Your task to perform on an android device: Check the weather Image 0: 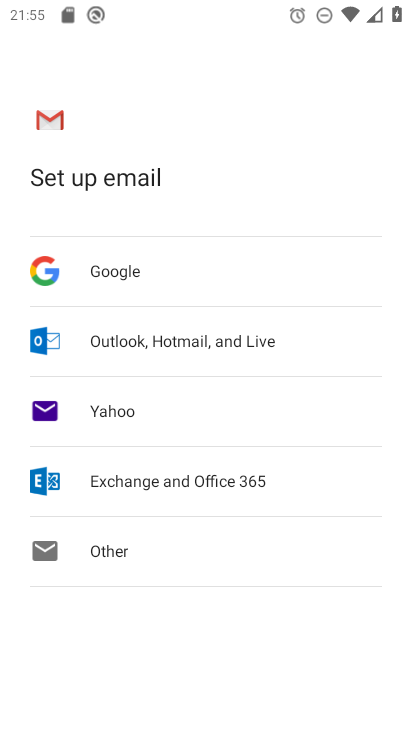
Step 0: press home button
Your task to perform on an android device: Check the weather Image 1: 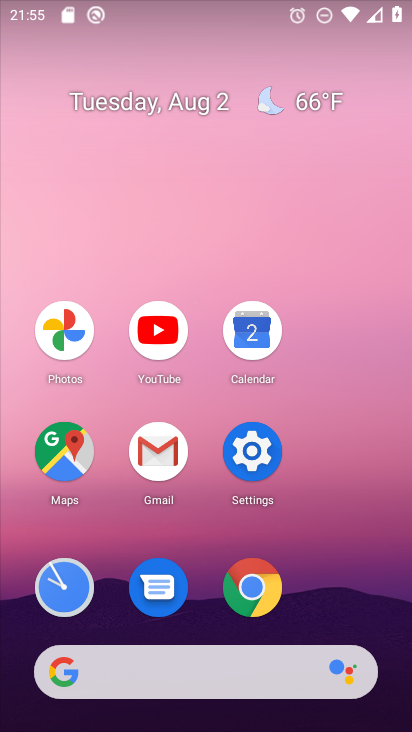
Step 1: click (189, 659)
Your task to perform on an android device: Check the weather Image 2: 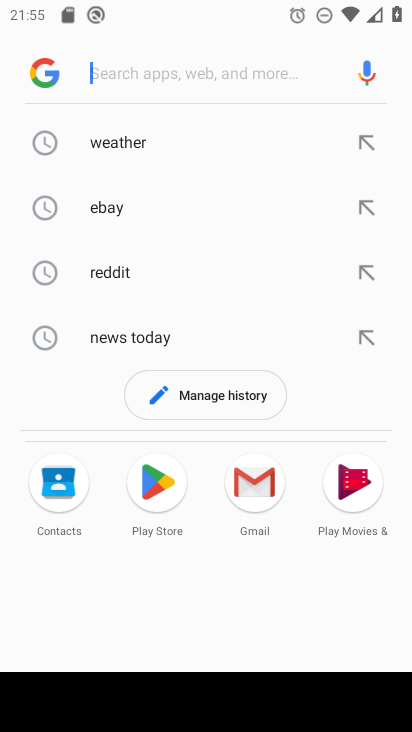
Step 2: click (123, 148)
Your task to perform on an android device: Check the weather Image 3: 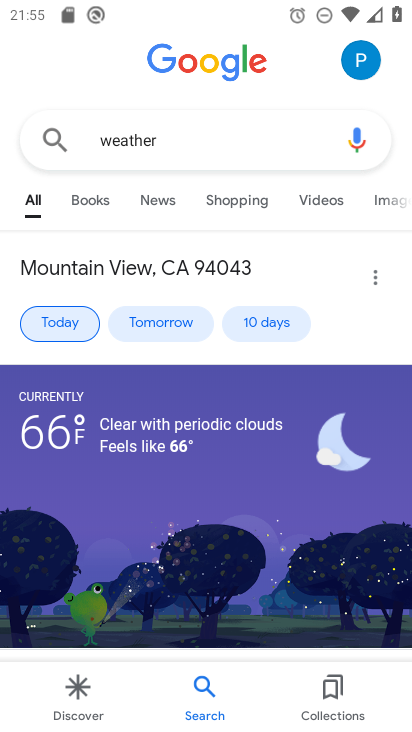
Step 3: task complete